Your task to perform on an android device: Set the phone to "Do not disturb". Image 0: 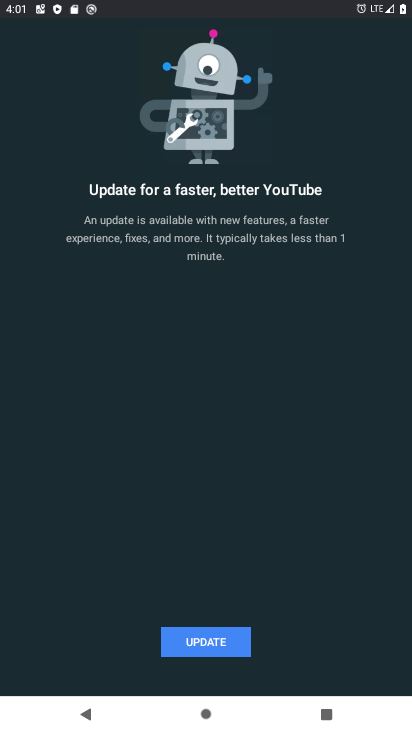
Step 0: press back button
Your task to perform on an android device: Set the phone to "Do not disturb". Image 1: 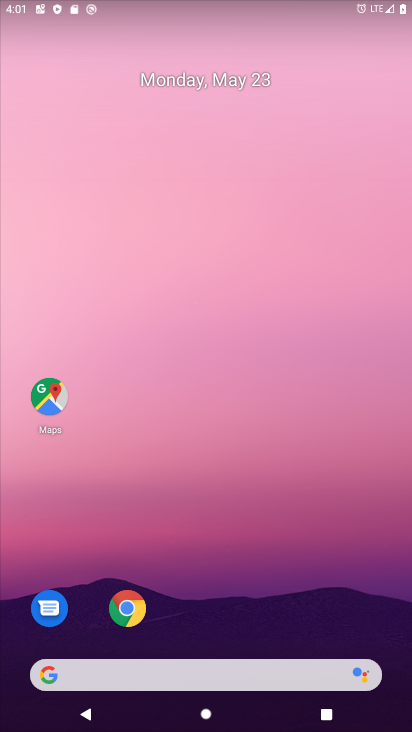
Step 1: drag from (253, 623) to (243, 206)
Your task to perform on an android device: Set the phone to "Do not disturb". Image 2: 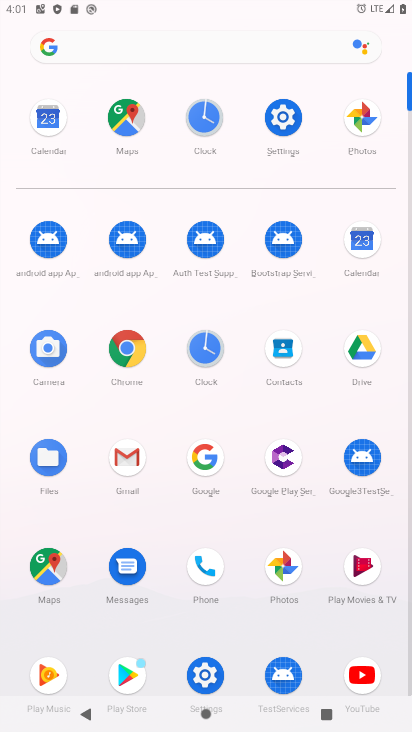
Step 2: click (282, 116)
Your task to perform on an android device: Set the phone to "Do not disturb". Image 3: 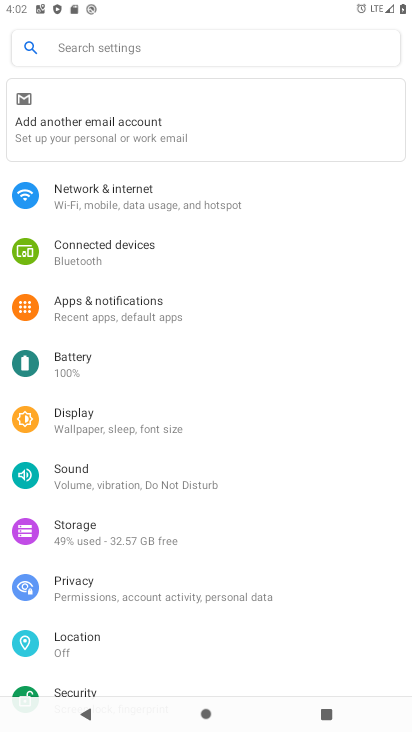
Step 3: click (140, 486)
Your task to perform on an android device: Set the phone to "Do not disturb". Image 4: 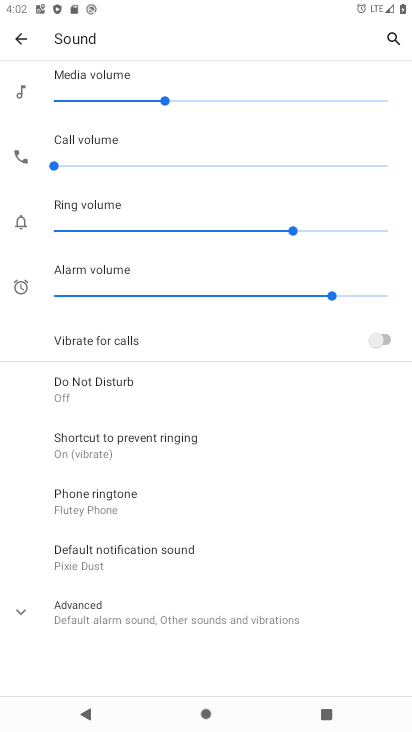
Step 4: click (97, 382)
Your task to perform on an android device: Set the phone to "Do not disturb". Image 5: 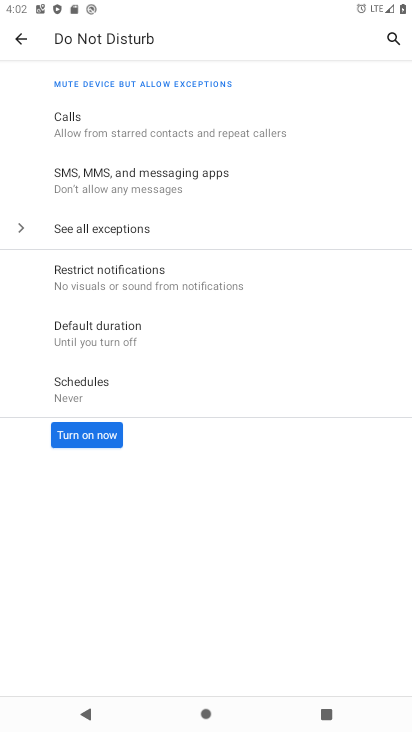
Step 5: click (97, 446)
Your task to perform on an android device: Set the phone to "Do not disturb". Image 6: 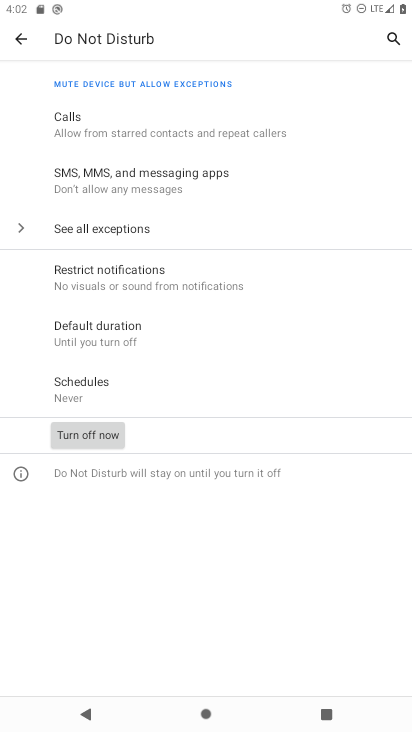
Step 6: task complete